Your task to perform on an android device: add a label to a message in the gmail app Image 0: 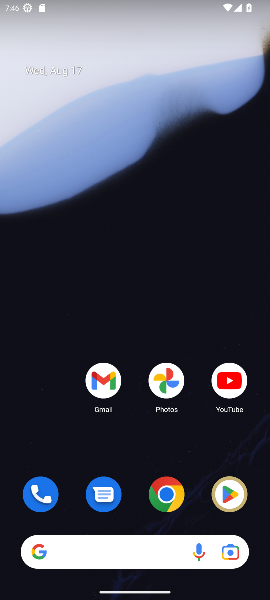
Step 0: drag from (127, 456) to (159, 176)
Your task to perform on an android device: add a label to a message in the gmail app Image 1: 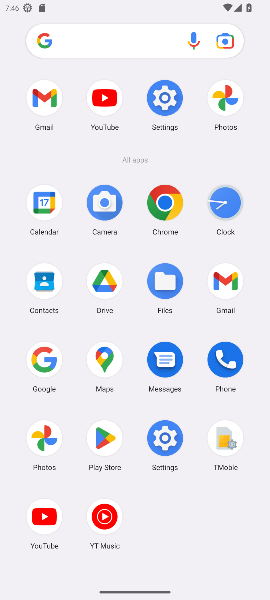
Step 1: click (51, 82)
Your task to perform on an android device: add a label to a message in the gmail app Image 2: 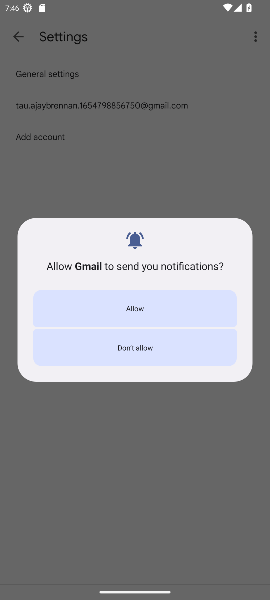
Step 2: click (157, 299)
Your task to perform on an android device: add a label to a message in the gmail app Image 3: 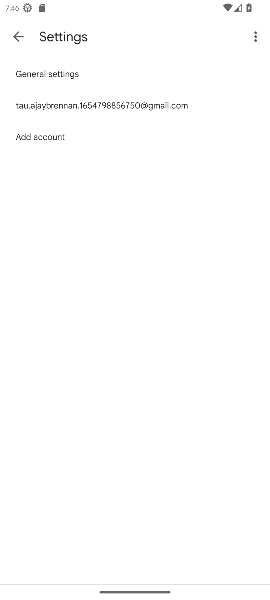
Step 3: click (36, 113)
Your task to perform on an android device: add a label to a message in the gmail app Image 4: 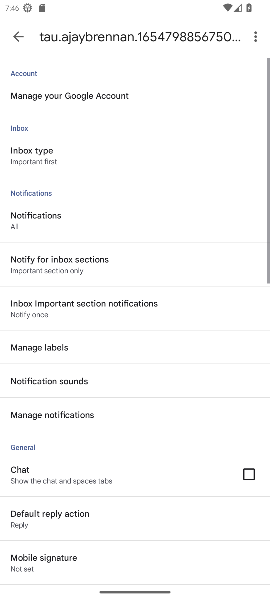
Step 4: click (17, 34)
Your task to perform on an android device: add a label to a message in the gmail app Image 5: 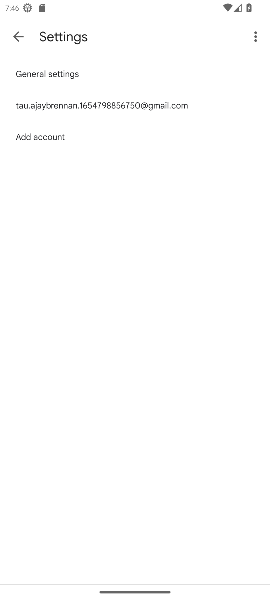
Step 5: click (17, 34)
Your task to perform on an android device: add a label to a message in the gmail app Image 6: 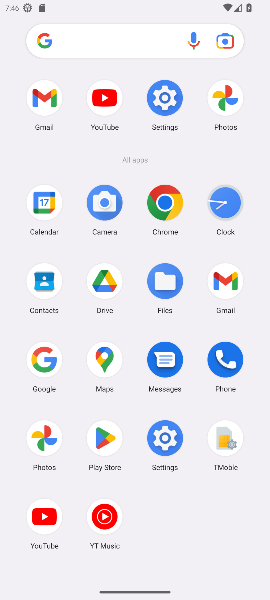
Step 6: click (54, 108)
Your task to perform on an android device: add a label to a message in the gmail app Image 7: 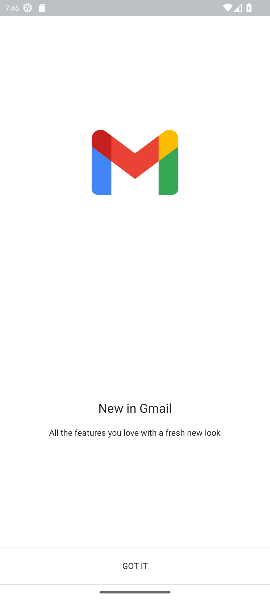
Step 7: click (158, 559)
Your task to perform on an android device: add a label to a message in the gmail app Image 8: 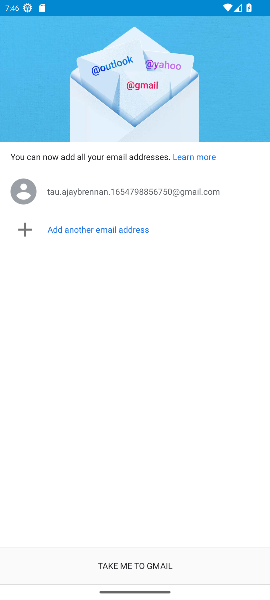
Step 8: click (154, 558)
Your task to perform on an android device: add a label to a message in the gmail app Image 9: 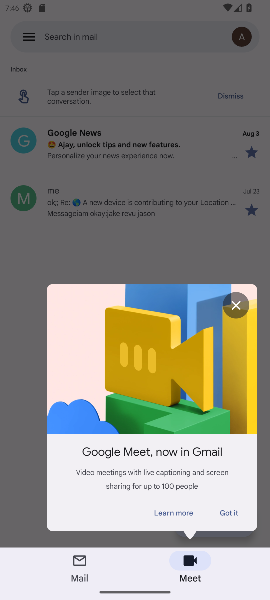
Step 9: click (230, 311)
Your task to perform on an android device: add a label to a message in the gmail app Image 10: 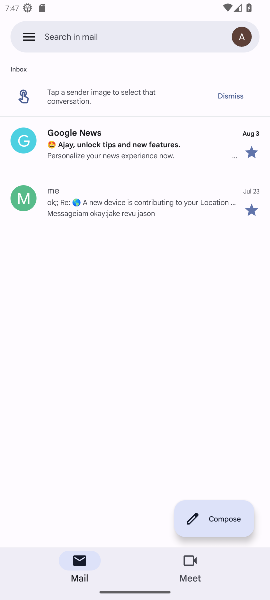
Step 10: click (135, 197)
Your task to perform on an android device: add a label to a message in the gmail app Image 11: 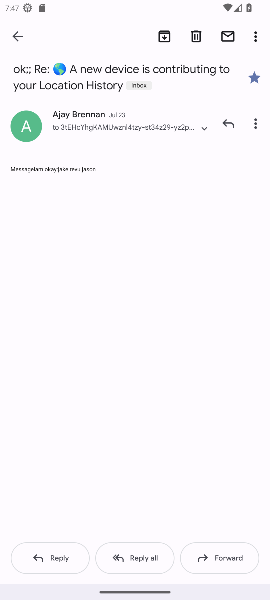
Step 11: task complete